Your task to perform on an android device: all mails in gmail Image 0: 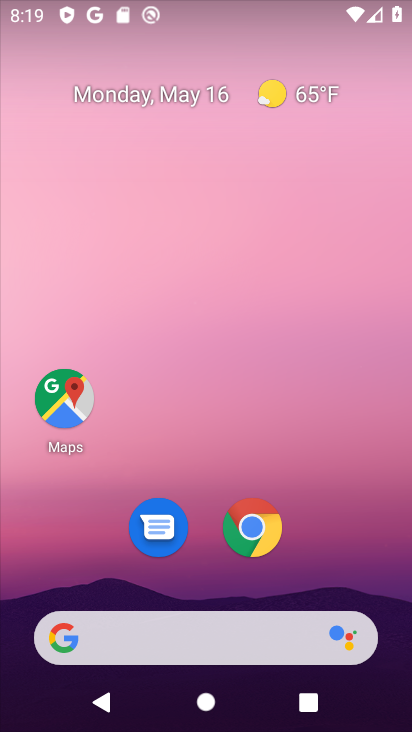
Step 0: drag from (298, 549) to (264, 254)
Your task to perform on an android device: all mails in gmail Image 1: 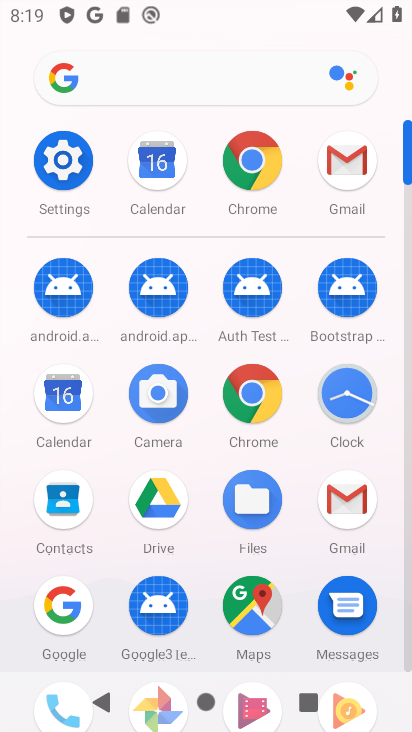
Step 1: click (329, 492)
Your task to perform on an android device: all mails in gmail Image 2: 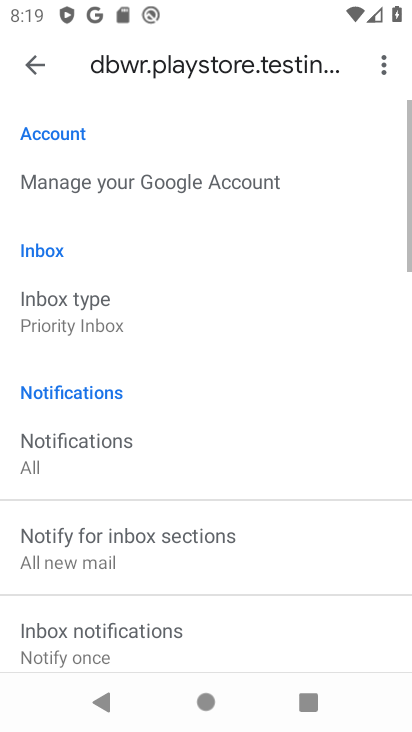
Step 2: click (35, 50)
Your task to perform on an android device: all mails in gmail Image 3: 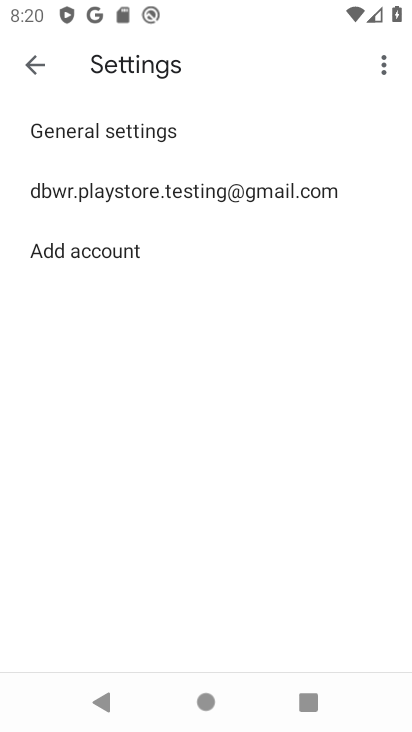
Step 3: click (35, 50)
Your task to perform on an android device: all mails in gmail Image 4: 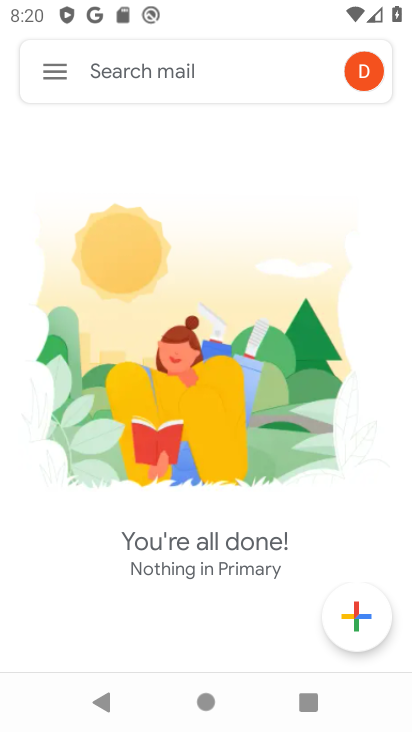
Step 4: click (44, 67)
Your task to perform on an android device: all mails in gmail Image 5: 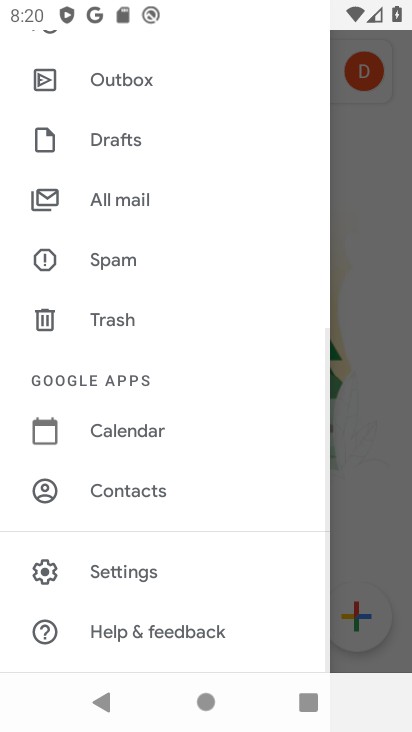
Step 5: click (140, 194)
Your task to perform on an android device: all mails in gmail Image 6: 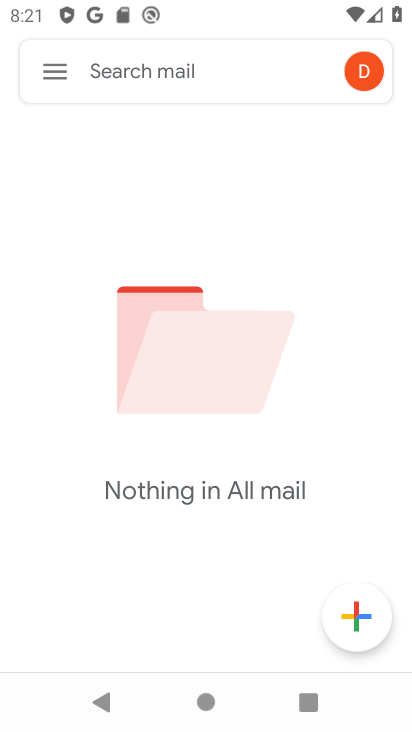
Step 6: task complete